Your task to perform on an android device: Clear all items from cart on target.com. Add apple airpods to the cart on target.com, then select checkout. Image 0: 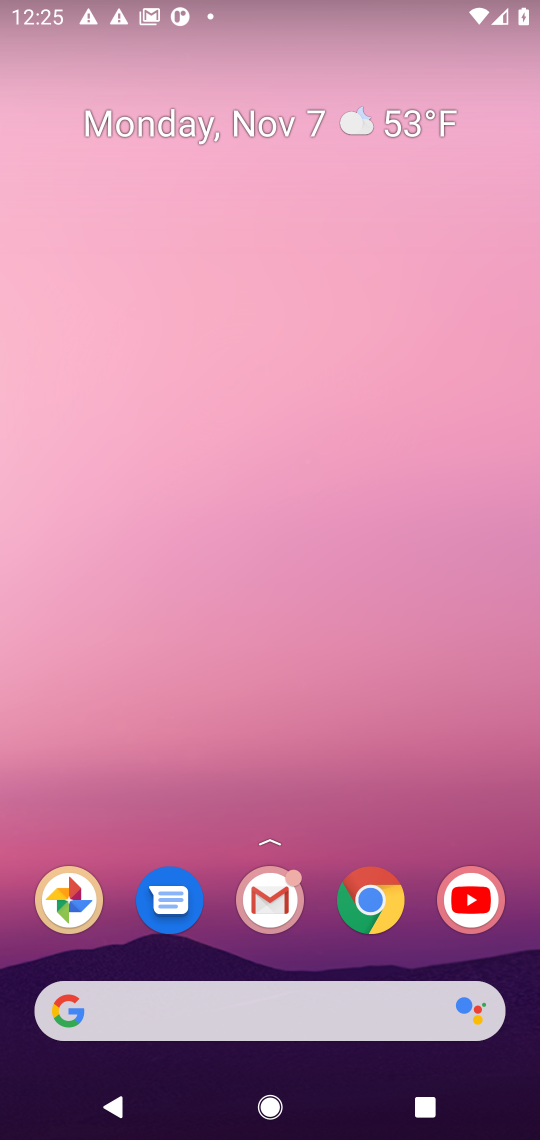
Step 0: click (362, 1041)
Your task to perform on an android device: Clear all items from cart on target.com. Add apple airpods to the cart on target.com, then select checkout. Image 1: 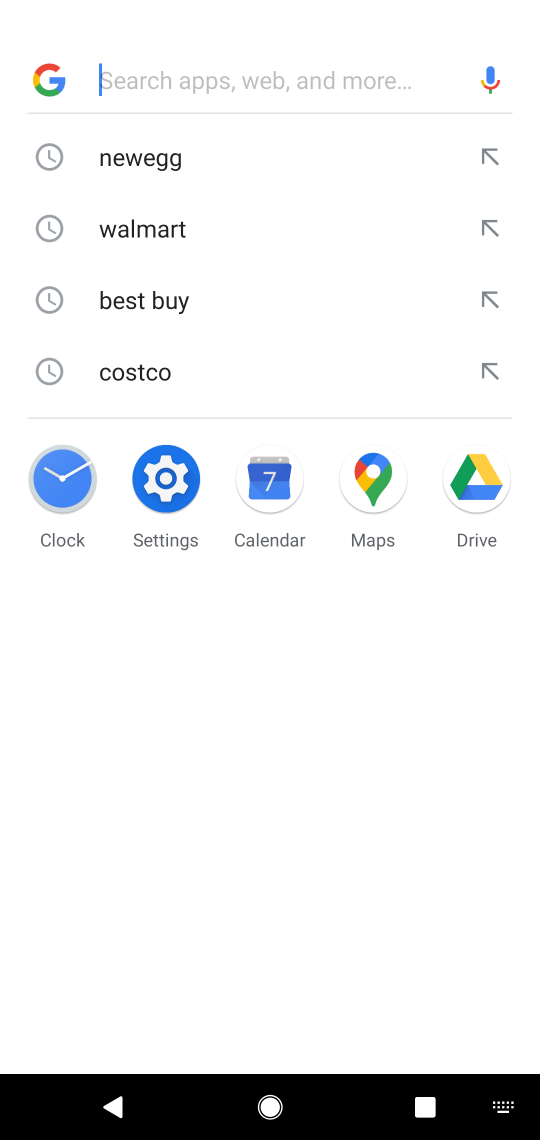
Step 1: type "target"
Your task to perform on an android device: Clear all items from cart on target.com. Add apple airpods to the cart on target.com, then select checkout. Image 2: 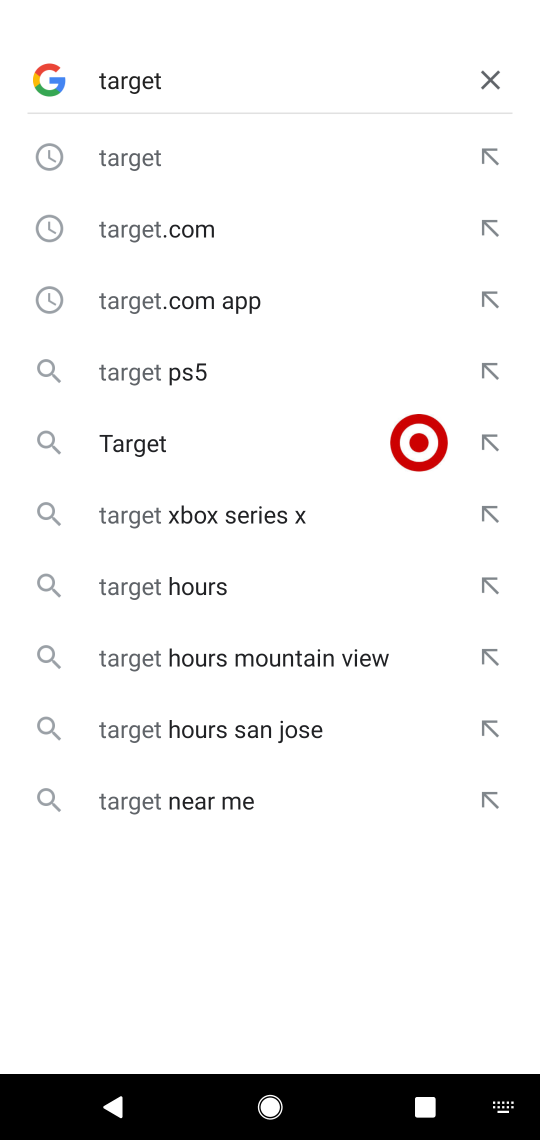
Step 2: click (419, 435)
Your task to perform on an android device: Clear all items from cart on target.com. Add apple airpods to the cart on target.com, then select checkout. Image 3: 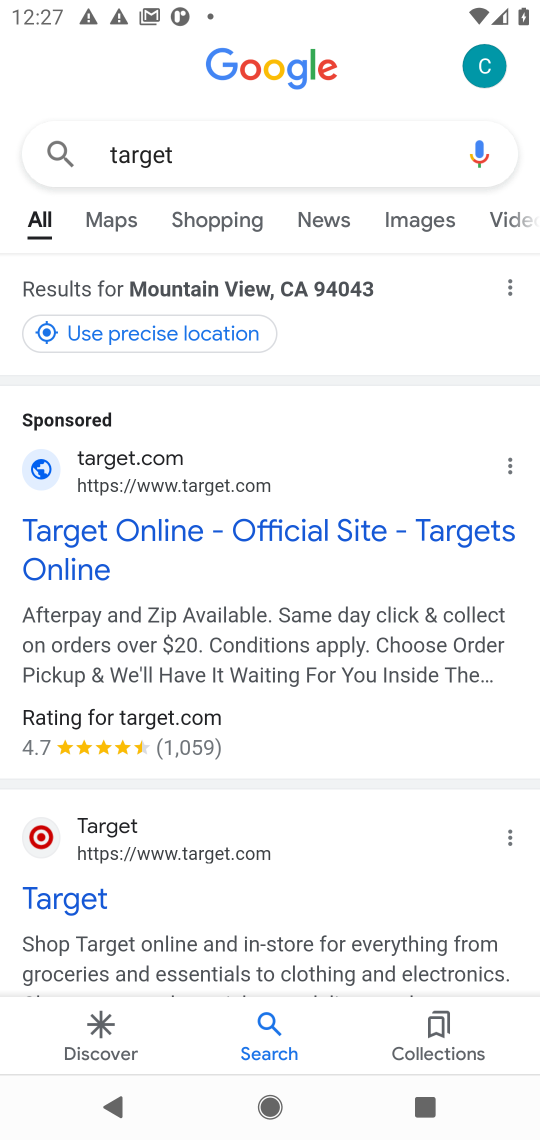
Step 3: click (130, 552)
Your task to perform on an android device: Clear all items from cart on target.com. Add apple airpods to the cart on target.com, then select checkout. Image 4: 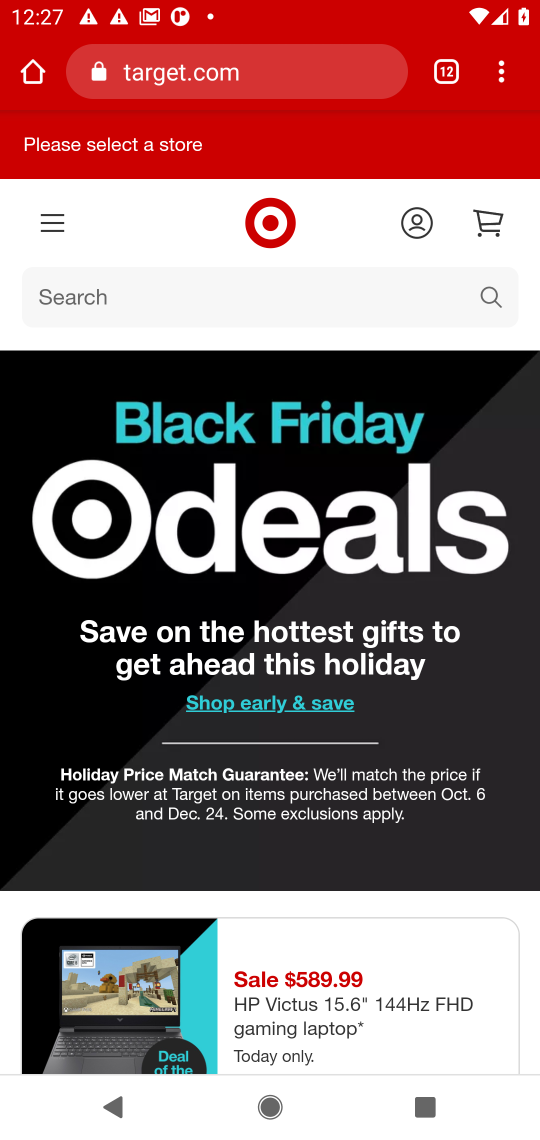
Step 4: task complete